Your task to perform on an android device: turn on data saver in the chrome app Image 0: 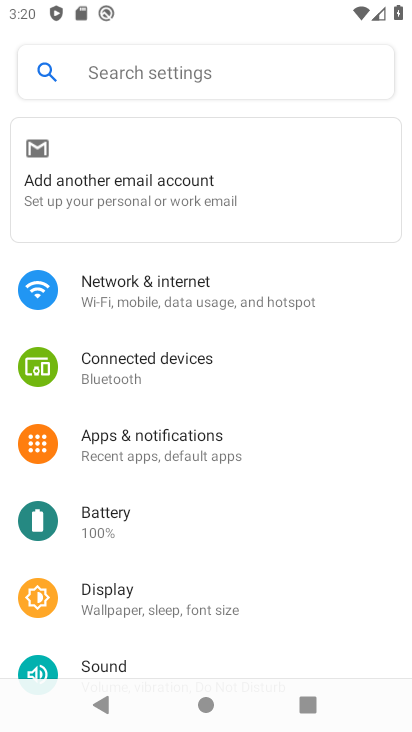
Step 0: press home button
Your task to perform on an android device: turn on data saver in the chrome app Image 1: 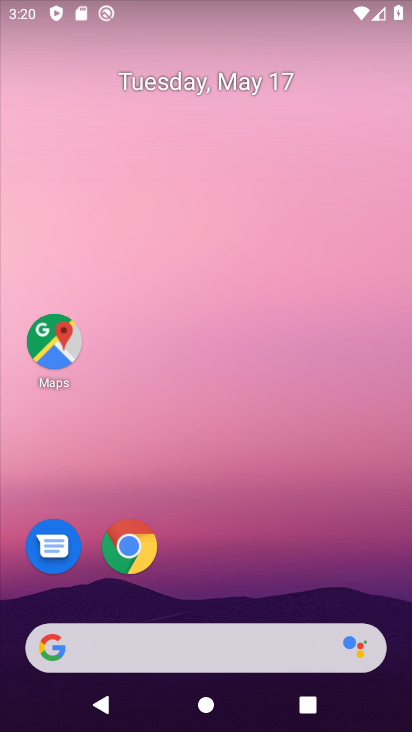
Step 1: click (130, 545)
Your task to perform on an android device: turn on data saver in the chrome app Image 2: 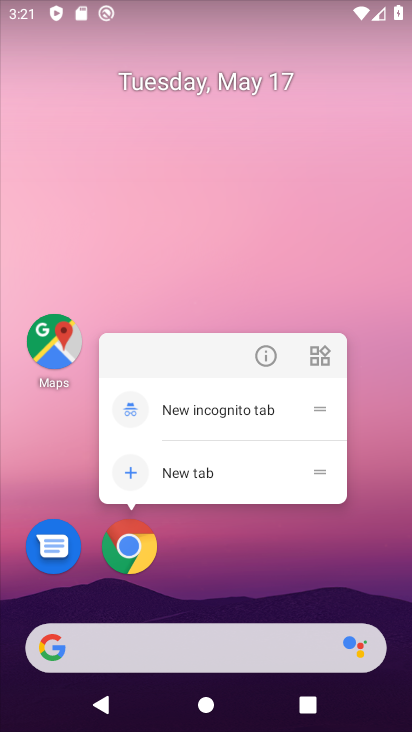
Step 2: click (280, 357)
Your task to perform on an android device: turn on data saver in the chrome app Image 3: 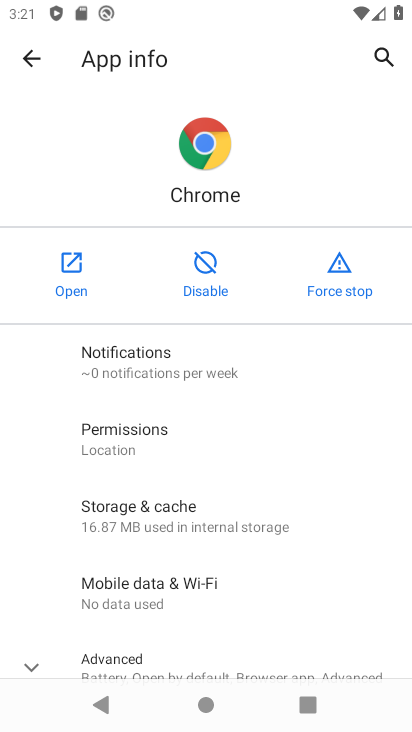
Step 3: click (82, 257)
Your task to perform on an android device: turn on data saver in the chrome app Image 4: 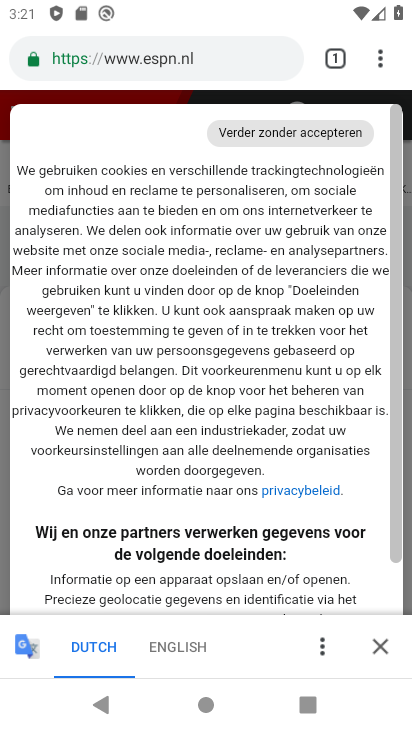
Step 4: click (381, 59)
Your task to perform on an android device: turn on data saver in the chrome app Image 5: 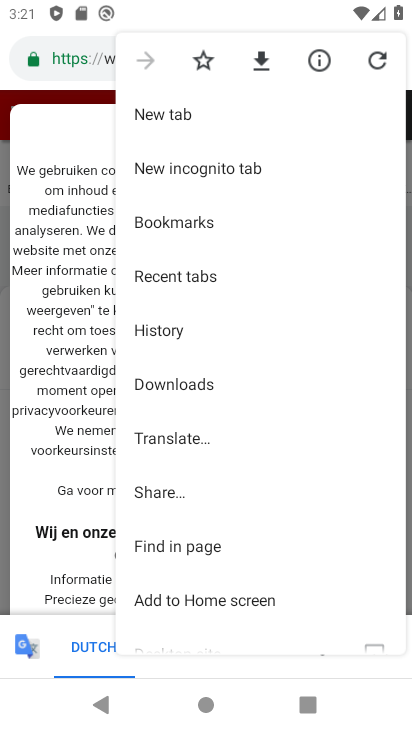
Step 5: drag from (188, 469) to (291, 181)
Your task to perform on an android device: turn on data saver in the chrome app Image 6: 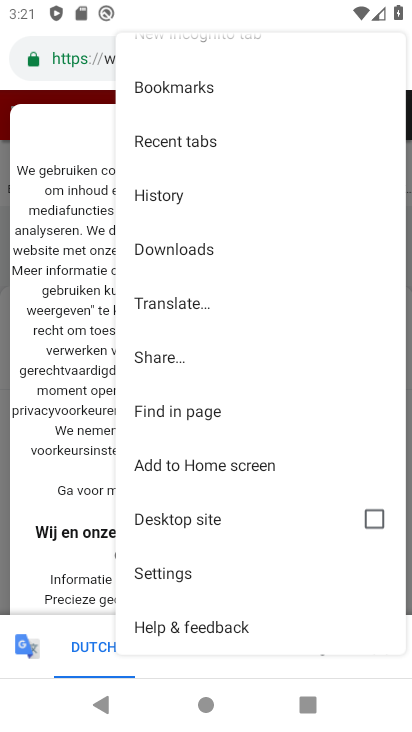
Step 6: click (176, 574)
Your task to perform on an android device: turn on data saver in the chrome app Image 7: 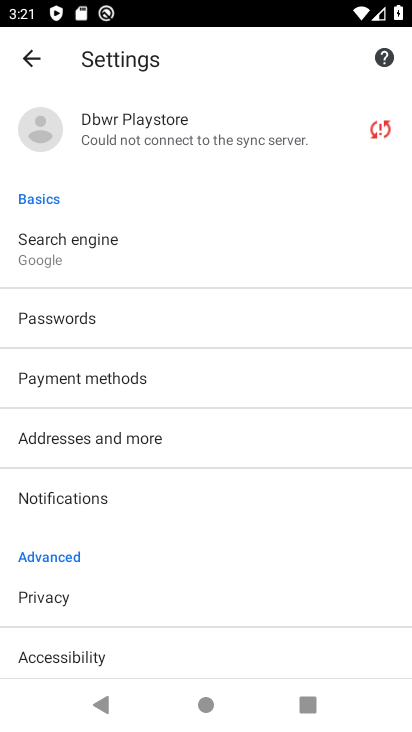
Step 7: drag from (80, 602) to (171, 420)
Your task to perform on an android device: turn on data saver in the chrome app Image 8: 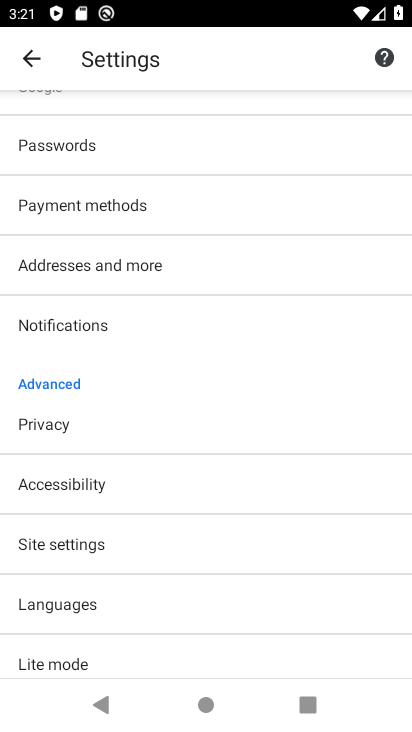
Step 8: click (70, 666)
Your task to perform on an android device: turn on data saver in the chrome app Image 9: 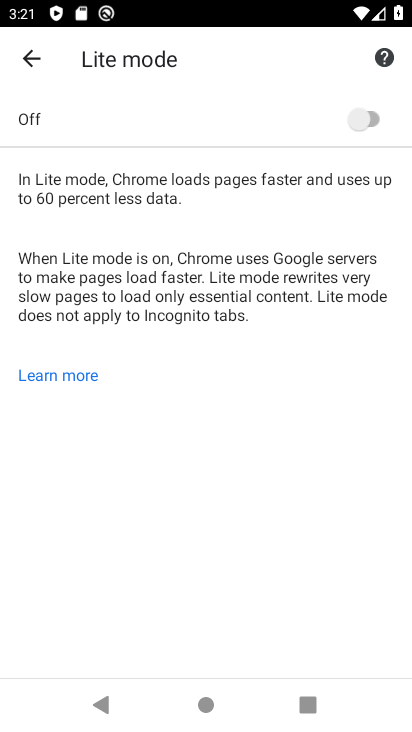
Step 9: click (359, 121)
Your task to perform on an android device: turn on data saver in the chrome app Image 10: 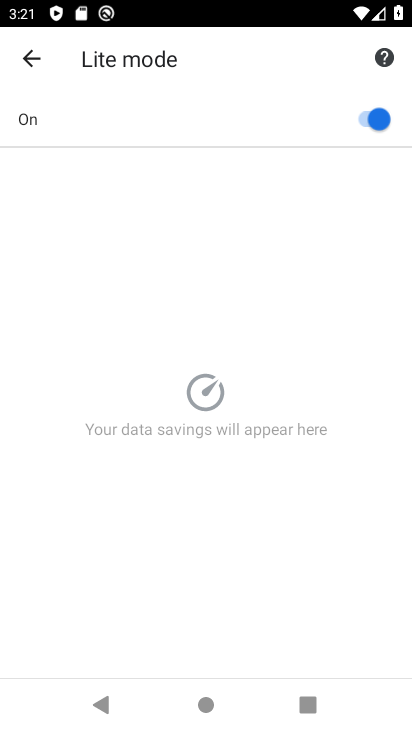
Step 10: task complete